Your task to perform on an android device: Open Google Chrome and click the shortcut for Amazon.com Image 0: 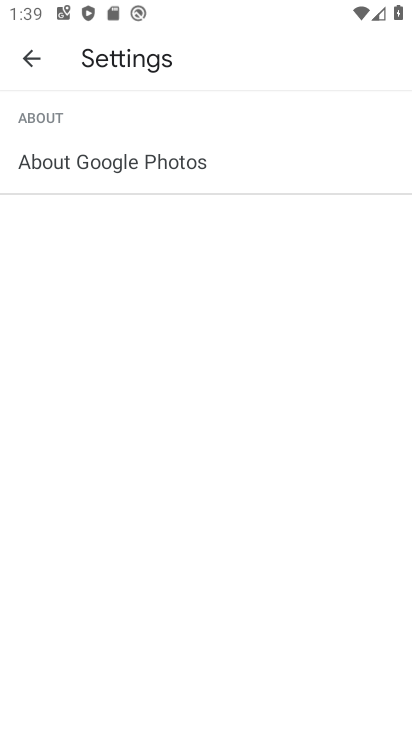
Step 0: press back button
Your task to perform on an android device: Open Google Chrome and click the shortcut for Amazon.com Image 1: 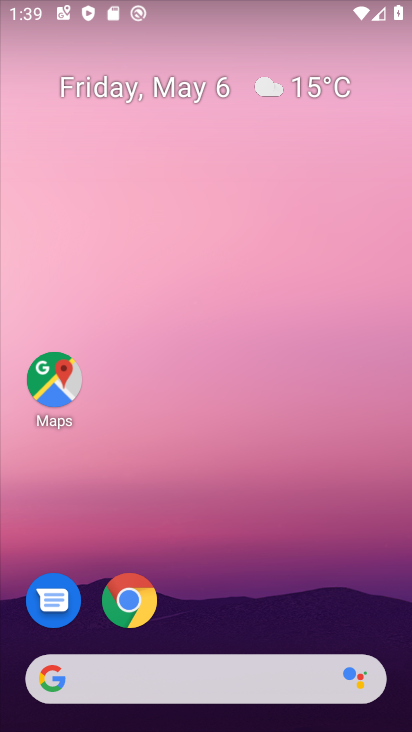
Step 1: drag from (299, 589) to (238, 0)
Your task to perform on an android device: Open Google Chrome and click the shortcut for Amazon.com Image 2: 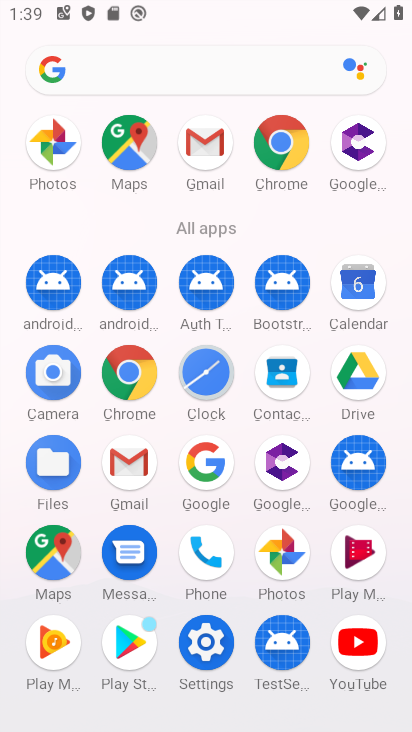
Step 2: click (281, 142)
Your task to perform on an android device: Open Google Chrome and click the shortcut for Amazon.com Image 3: 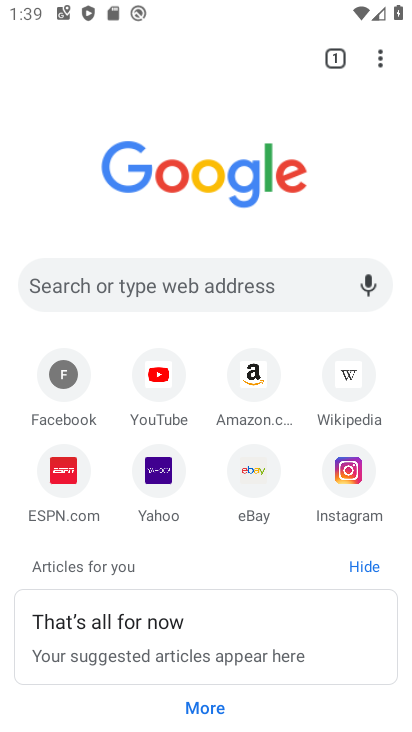
Step 3: click (259, 376)
Your task to perform on an android device: Open Google Chrome and click the shortcut for Amazon.com Image 4: 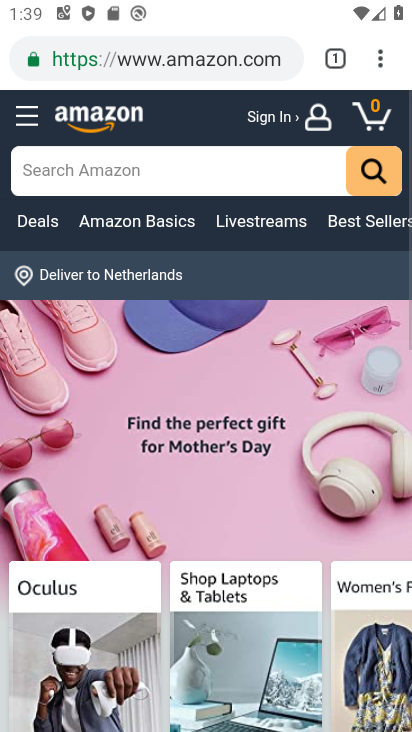
Step 4: drag from (380, 56) to (271, 602)
Your task to perform on an android device: Open Google Chrome and click the shortcut for Amazon.com Image 5: 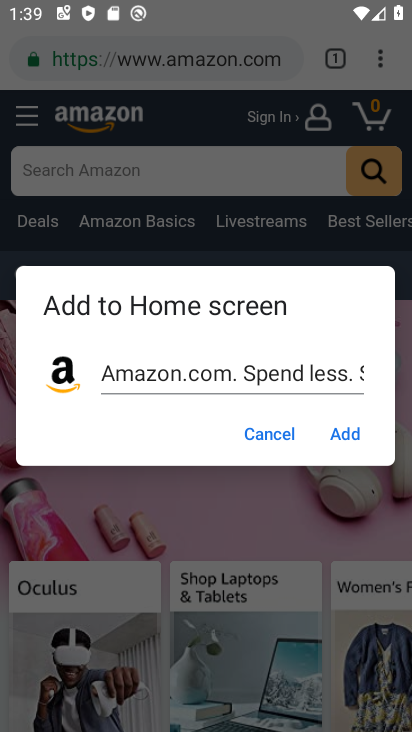
Step 5: click (338, 433)
Your task to perform on an android device: Open Google Chrome and click the shortcut for Amazon.com Image 6: 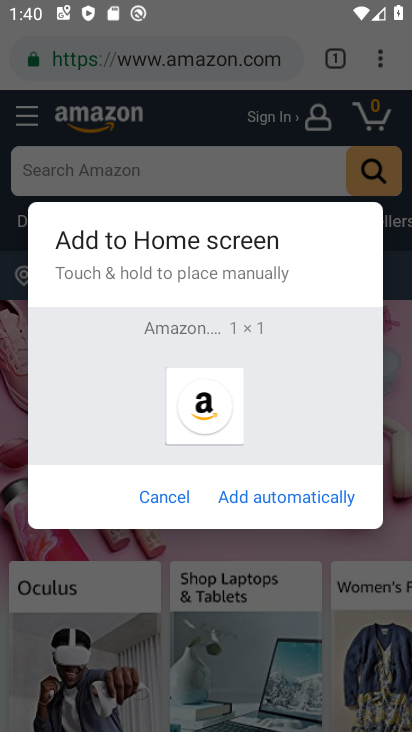
Step 6: click (336, 495)
Your task to perform on an android device: Open Google Chrome and click the shortcut for Amazon.com Image 7: 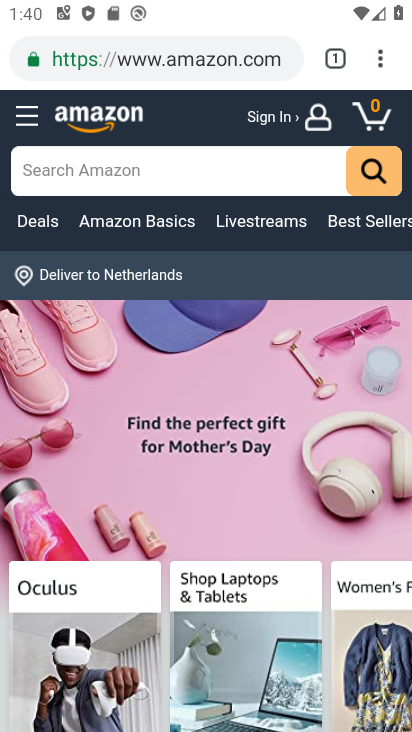
Step 7: task complete